Your task to perform on an android device: see sites visited before in the chrome app Image 0: 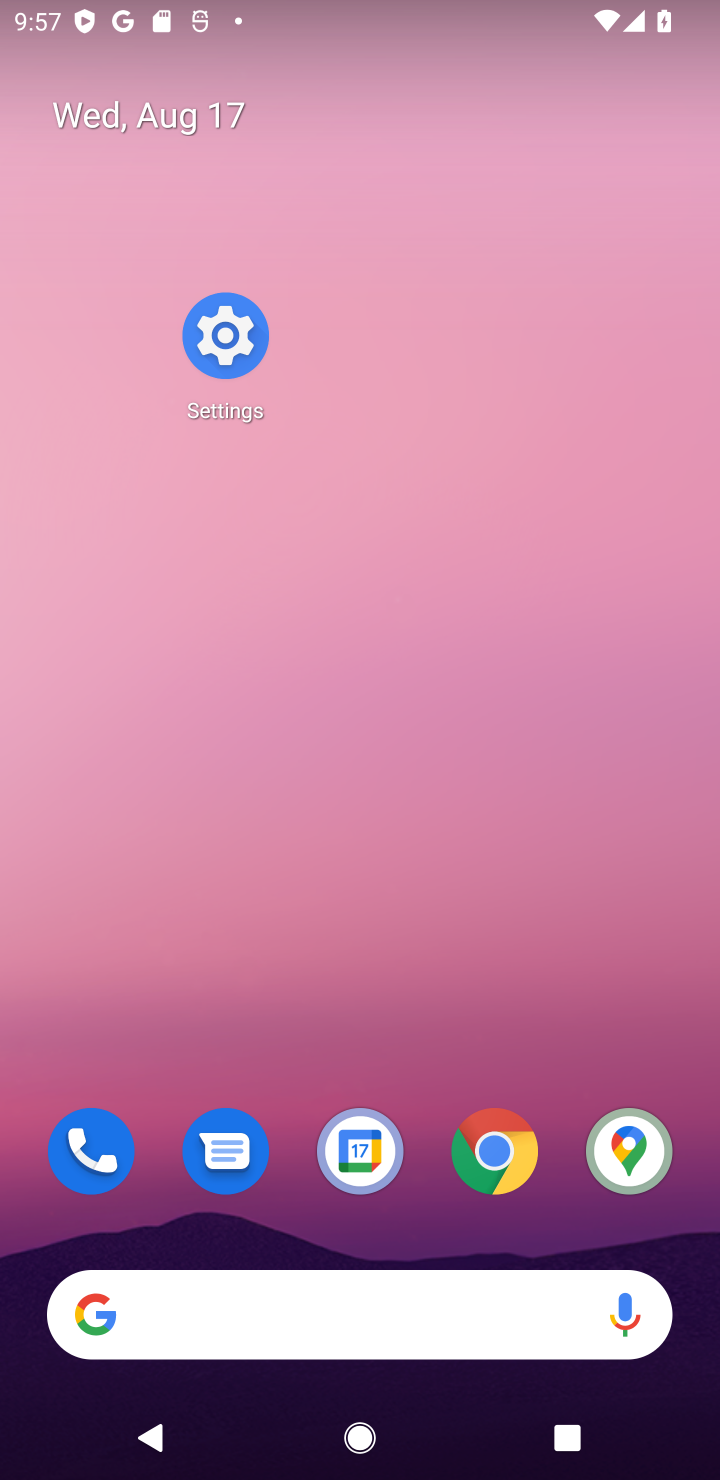
Step 0: click (496, 1160)
Your task to perform on an android device: see sites visited before in the chrome app Image 1: 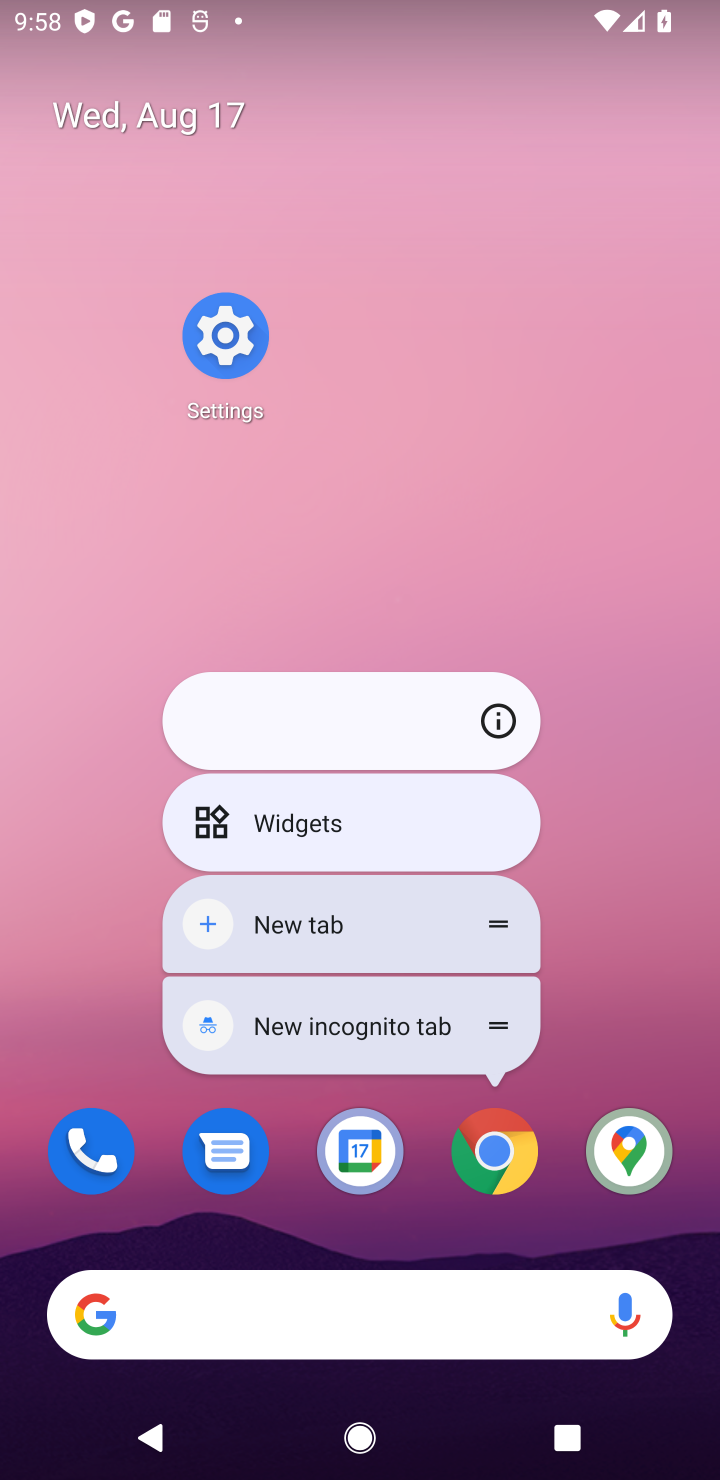
Step 1: click (491, 1167)
Your task to perform on an android device: see sites visited before in the chrome app Image 2: 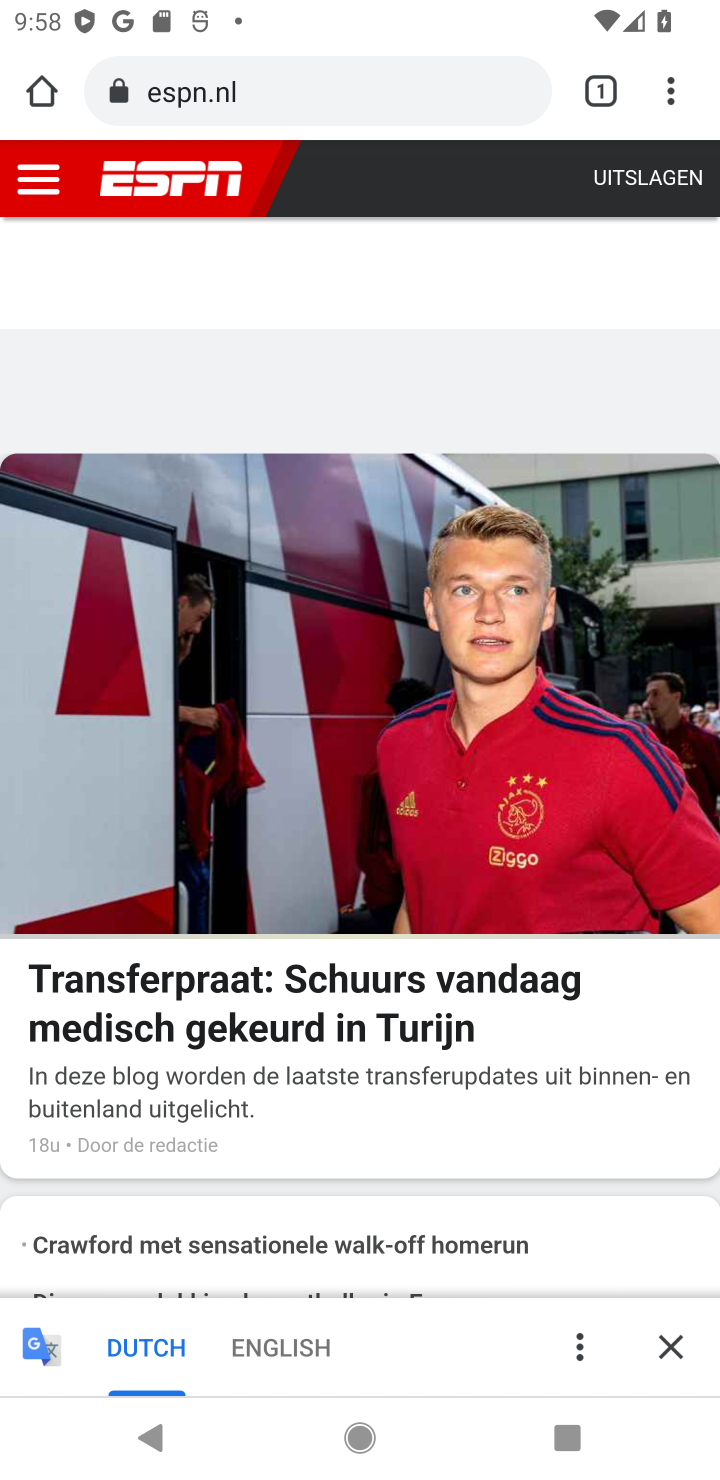
Step 2: click (663, 92)
Your task to perform on an android device: see sites visited before in the chrome app Image 3: 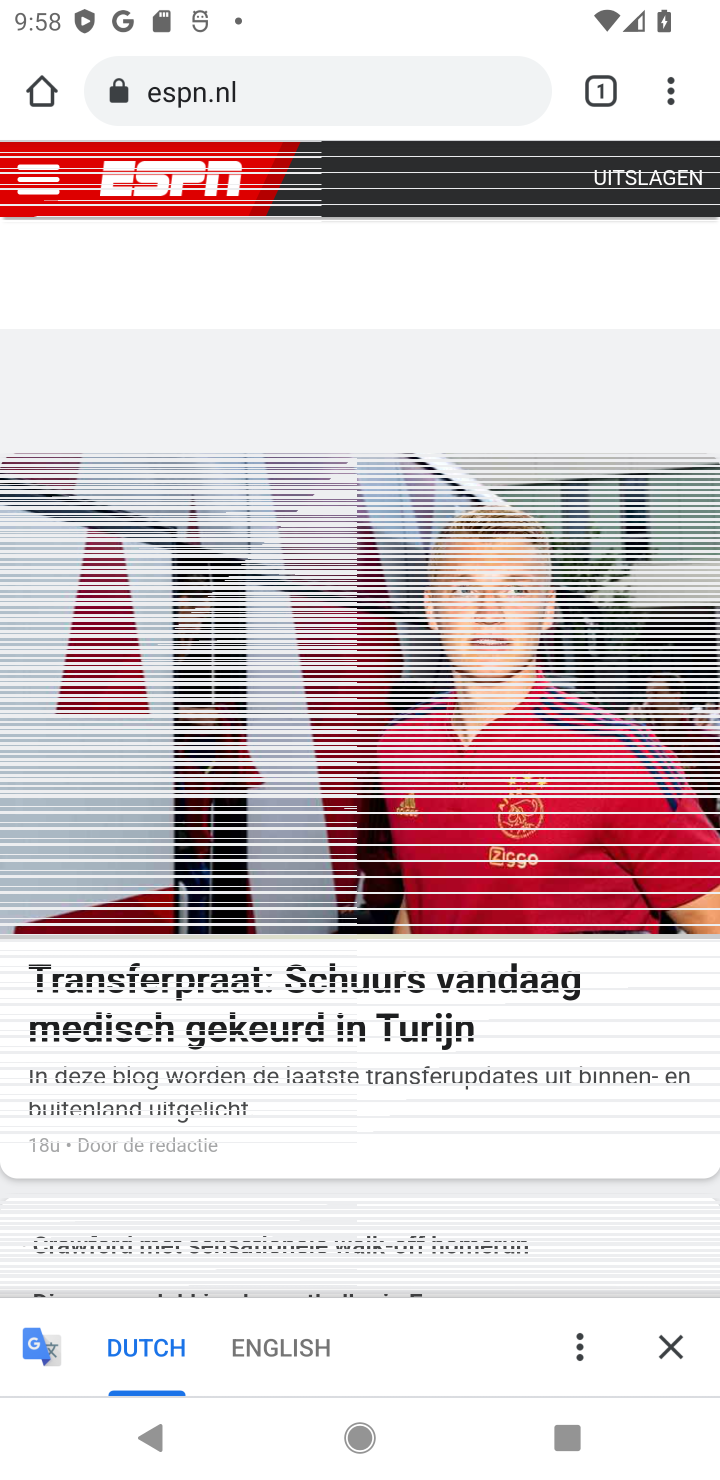
Step 3: click (668, 92)
Your task to perform on an android device: see sites visited before in the chrome app Image 4: 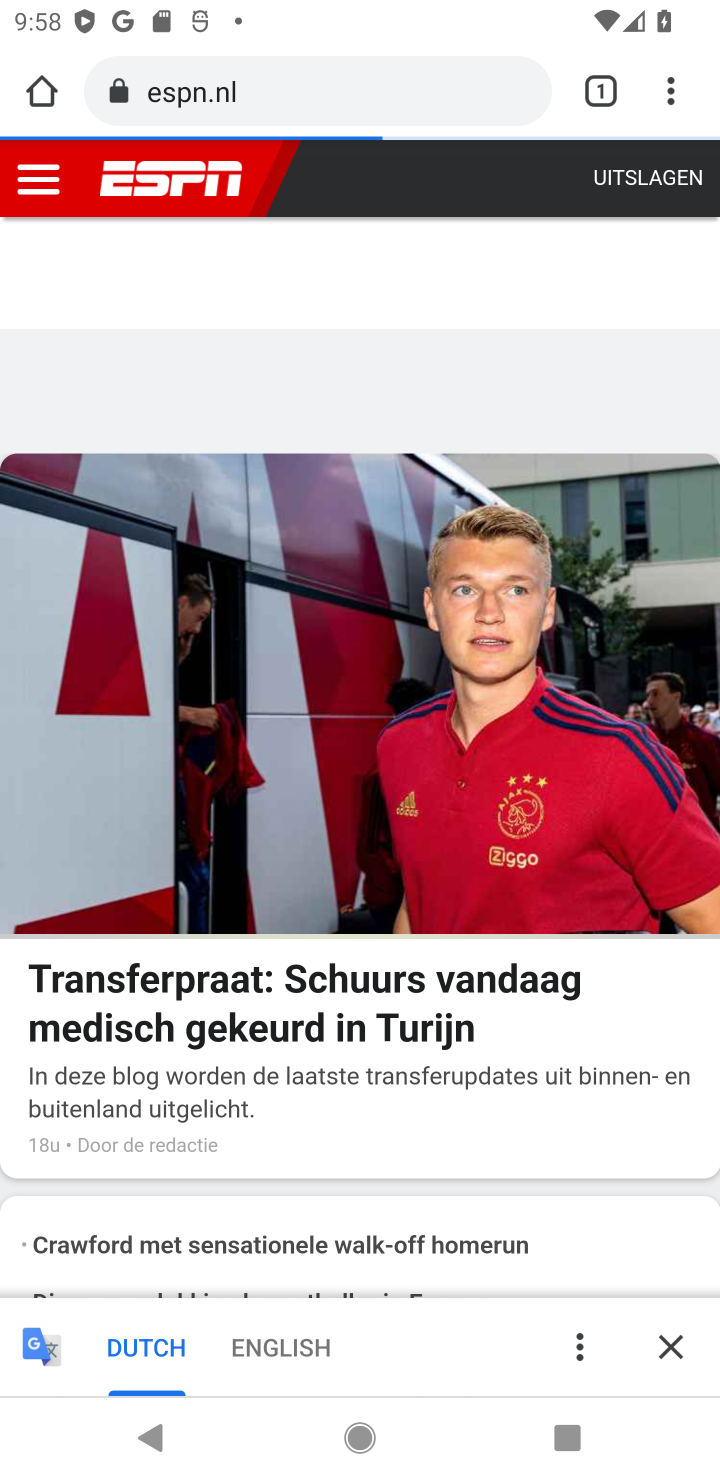
Step 4: click (668, 92)
Your task to perform on an android device: see sites visited before in the chrome app Image 5: 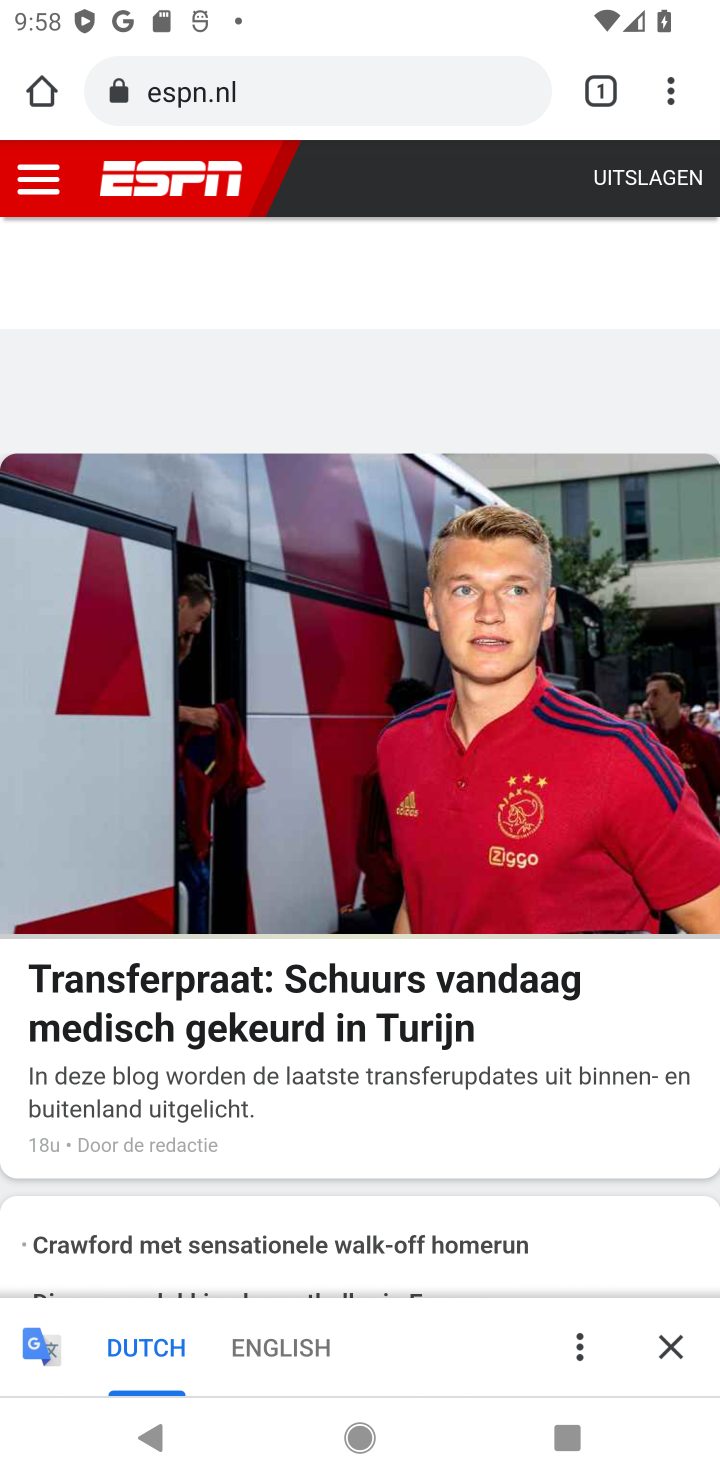
Step 5: click (668, 92)
Your task to perform on an android device: see sites visited before in the chrome app Image 6: 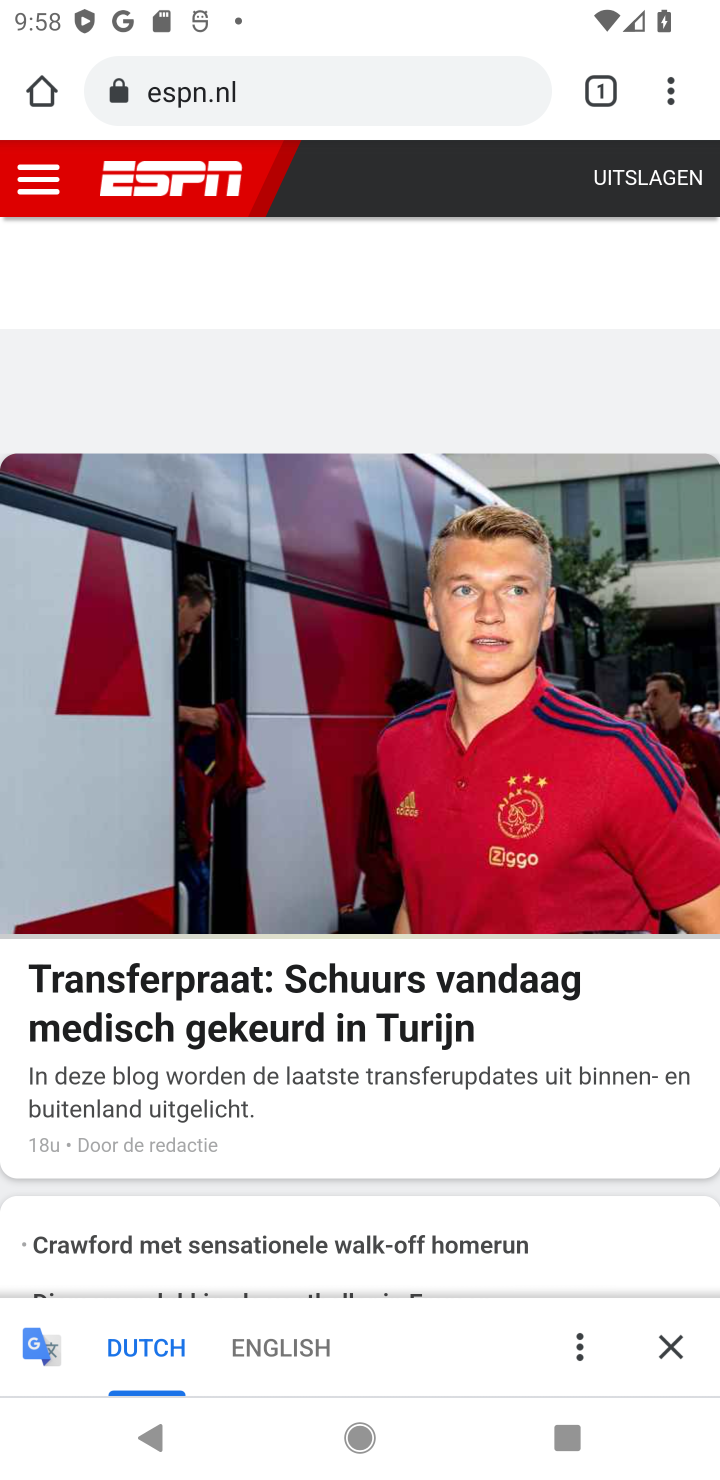
Step 6: task complete